Your task to perform on an android device: Open Google Maps Image 0: 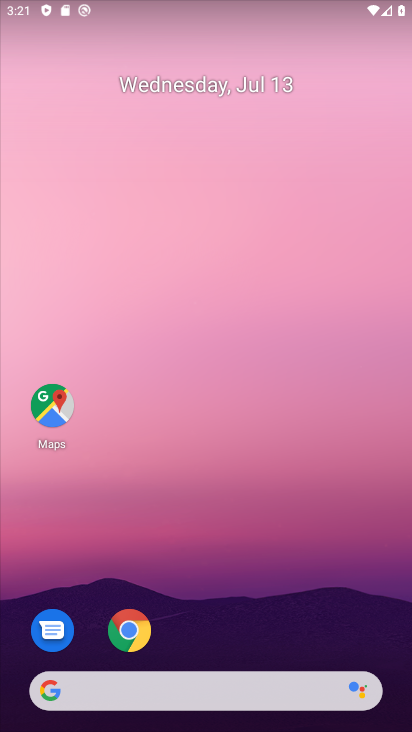
Step 0: click (44, 406)
Your task to perform on an android device: Open Google Maps Image 1: 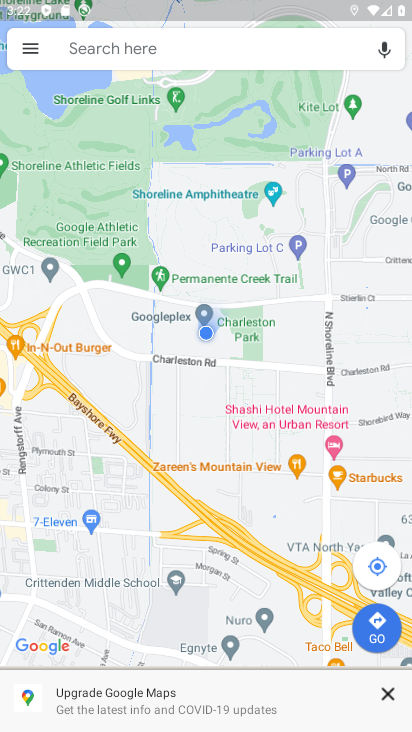
Step 1: task complete